Your task to perform on an android device: Do I have any events today? Image 0: 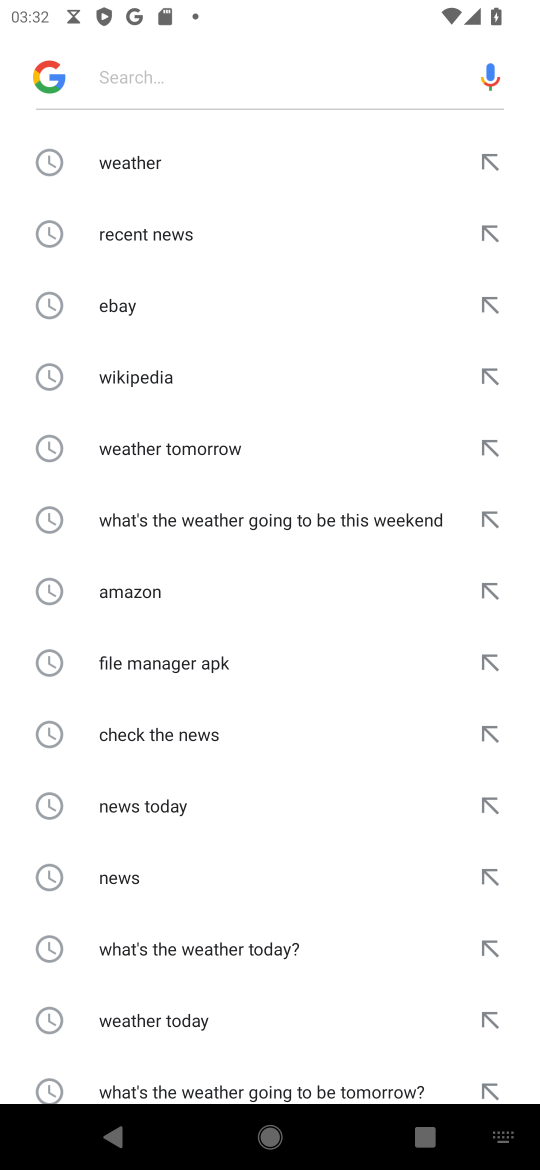
Step 0: press home button
Your task to perform on an android device: Do I have any events today? Image 1: 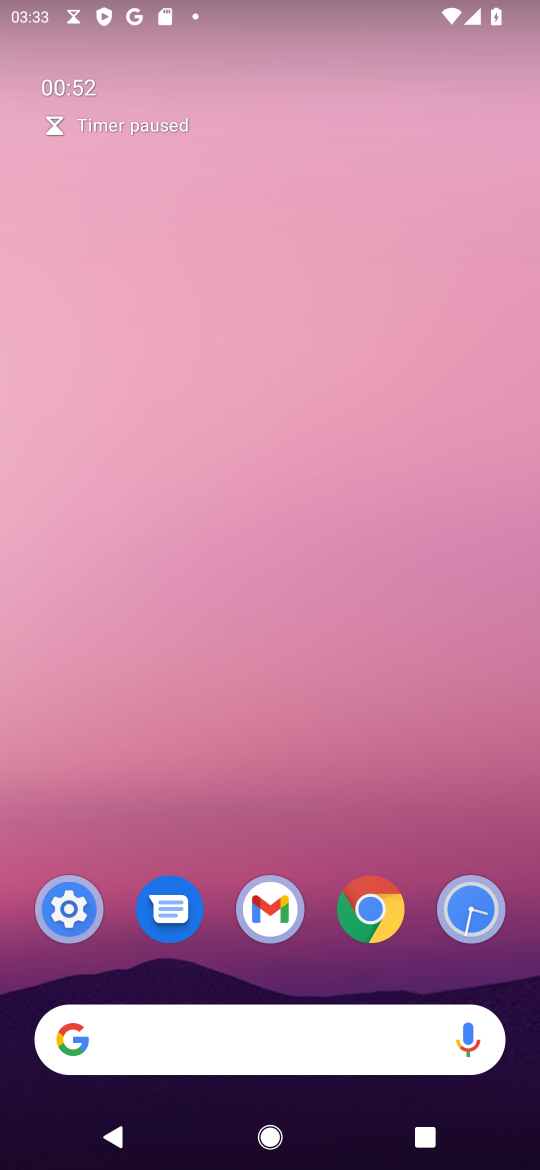
Step 1: drag from (255, 1009) to (390, 592)
Your task to perform on an android device: Do I have any events today? Image 2: 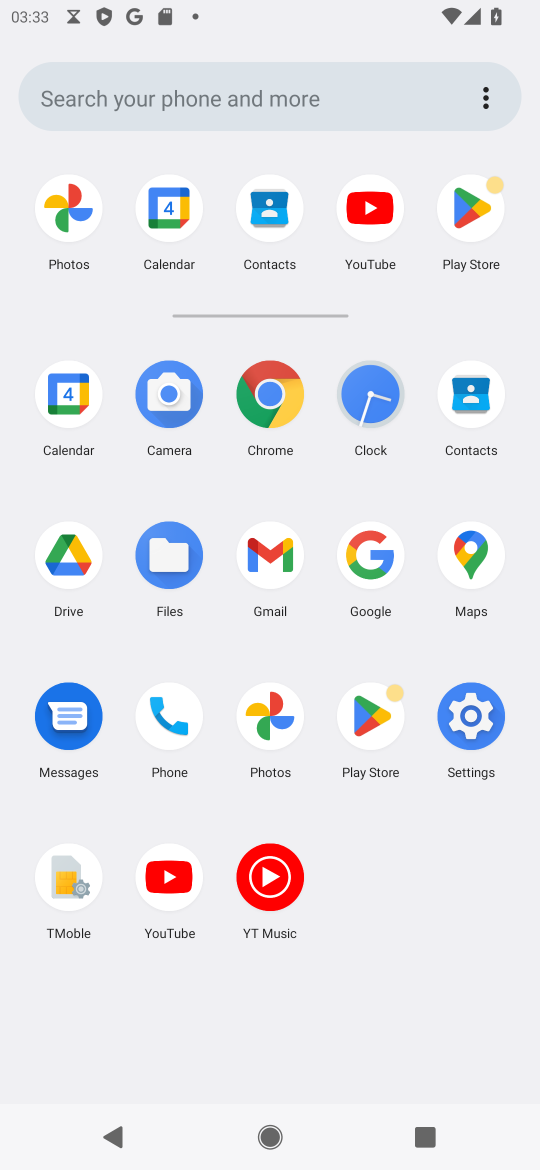
Step 2: click (67, 404)
Your task to perform on an android device: Do I have any events today? Image 3: 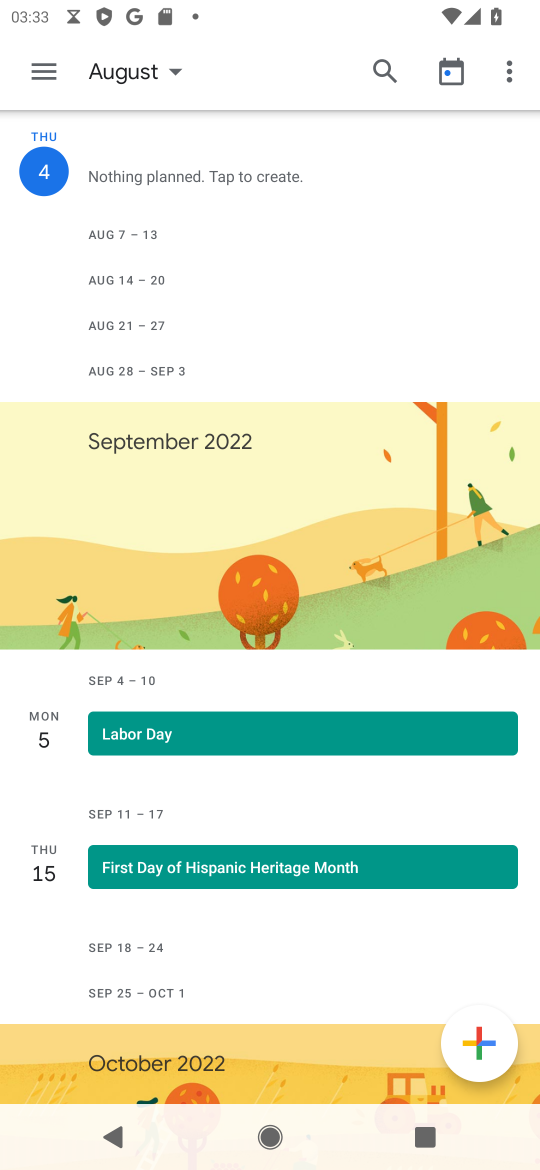
Step 3: task complete